Your task to perform on an android device: Go to Amazon Image 0: 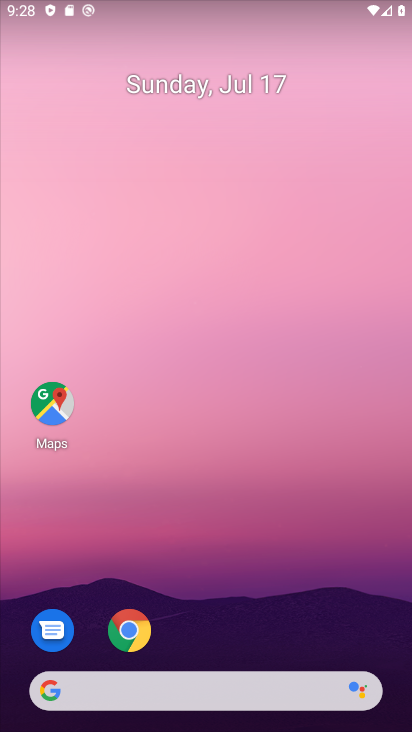
Step 0: click (117, 620)
Your task to perform on an android device: Go to Amazon Image 1: 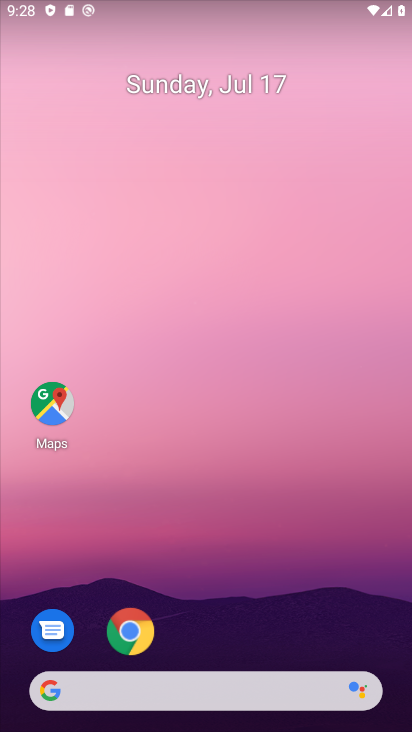
Step 1: click (117, 620)
Your task to perform on an android device: Go to Amazon Image 2: 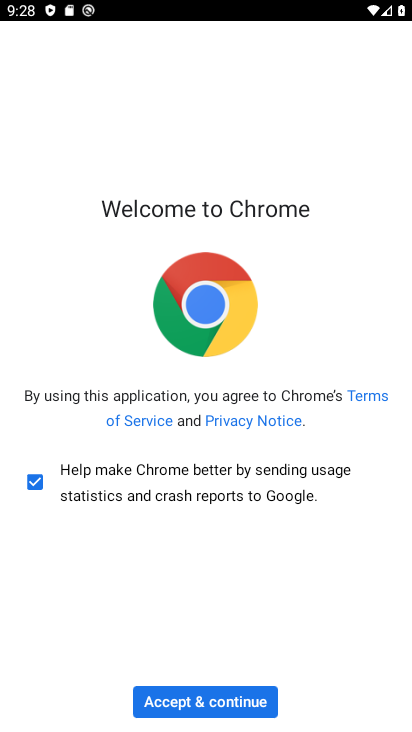
Step 2: click (248, 708)
Your task to perform on an android device: Go to Amazon Image 3: 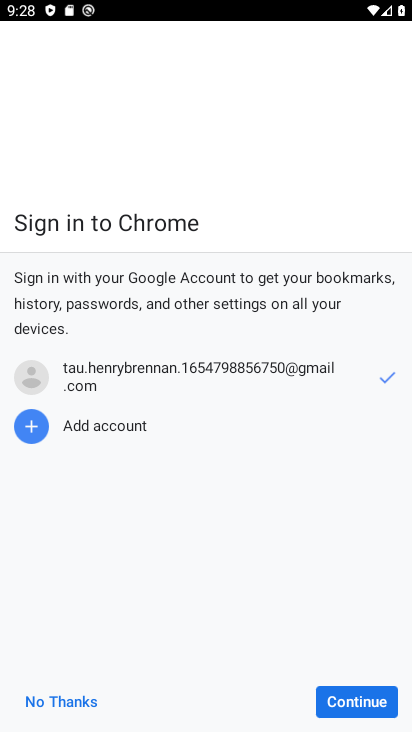
Step 3: click (388, 699)
Your task to perform on an android device: Go to Amazon Image 4: 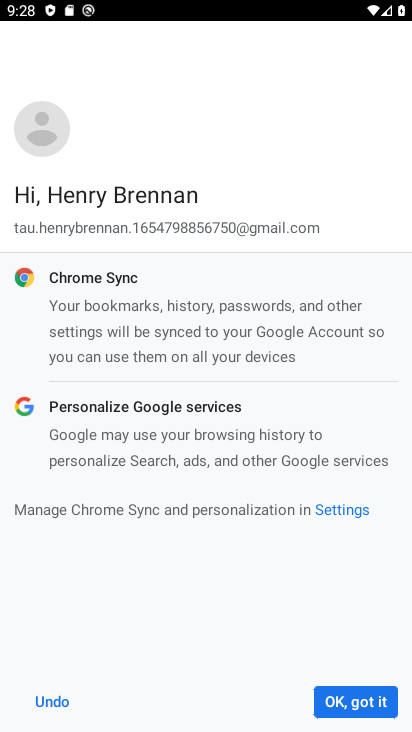
Step 4: click (383, 695)
Your task to perform on an android device: Go to Amazon Image 5: 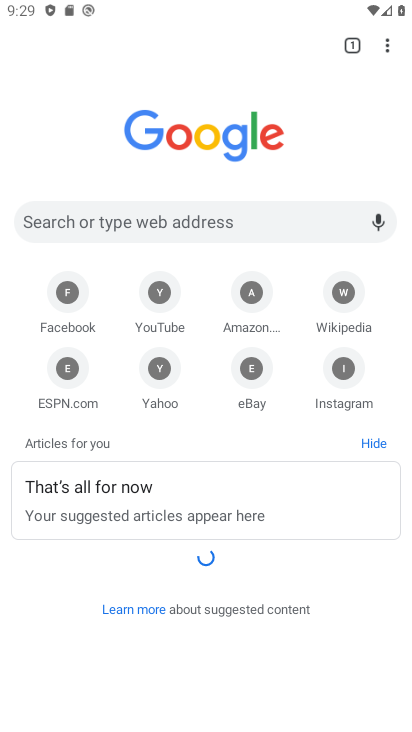
Step 5: click (256, 313)
Your task to perform on an android device: Go to Amazon Image 6: 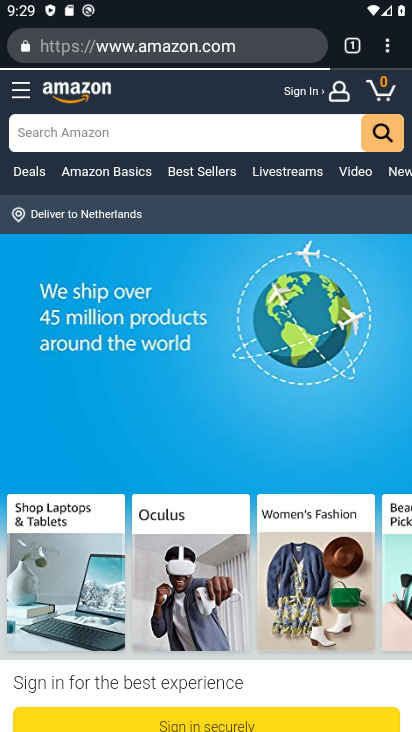
Step 6: task complete